Your task to perform on an android device: Go to wifi settings Image 0: 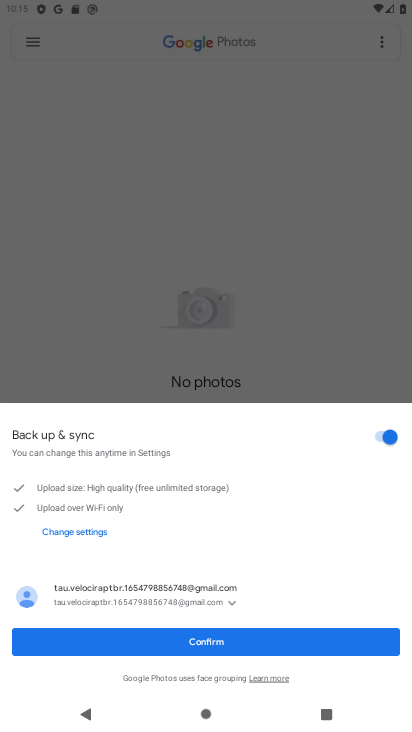
Step 0: press home button
Your task to perform on an android device: Go to wifi settings Image 1: 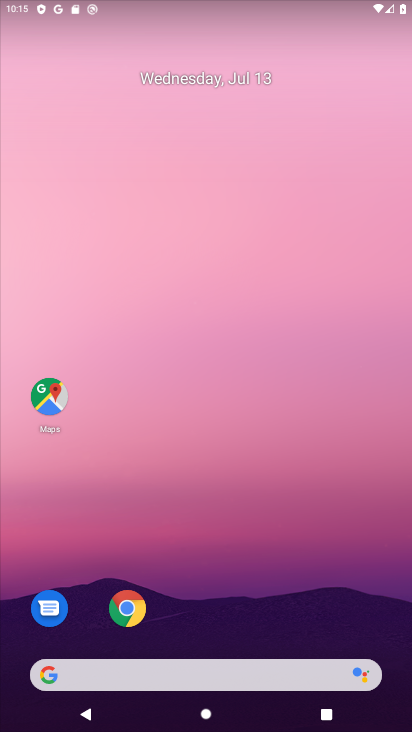
Step 1: drag from (245, 570) to (216, 219)
Your task to perform on an android device: Go to wifi settings Image 2: 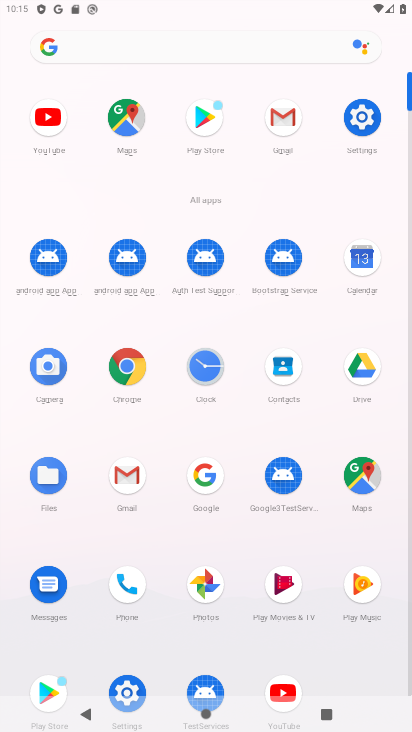
Step 2: click (367, 112)
Your task to perform on an android device: Go to wifi settings Image 3: 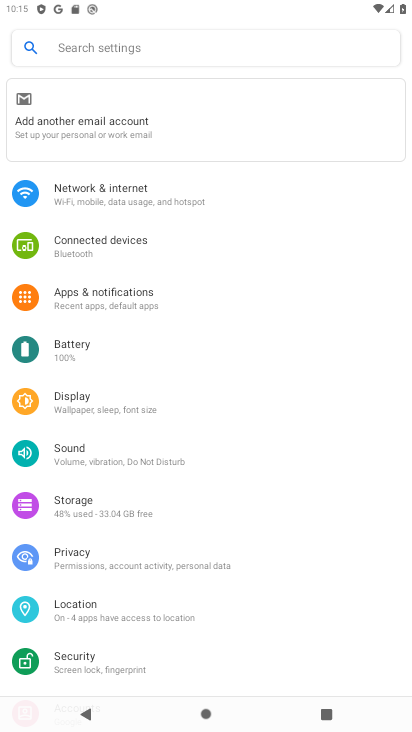
Step 3: click (183, 196)
Your task to perform on an android device: Go to wifi settings Image 4: 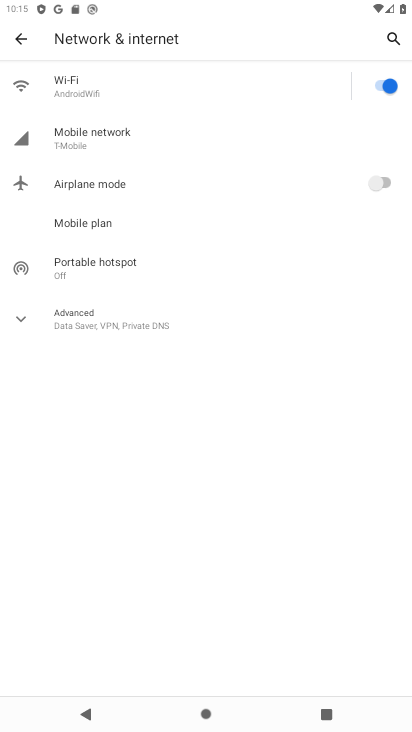
Step 4: click (92, 100)
Your task to perform on an android device: Go to wifi settings Image 5: 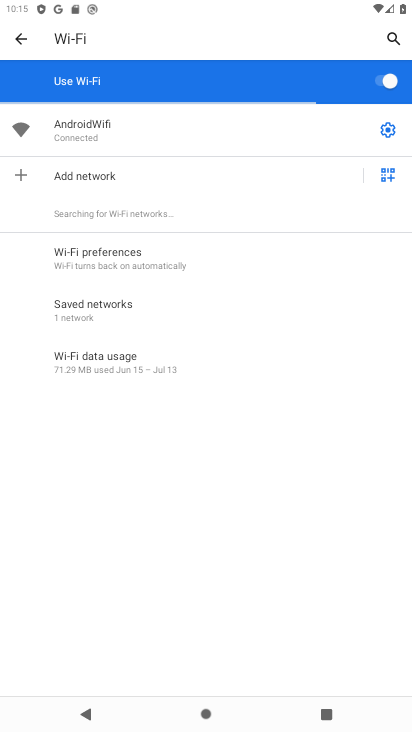
Step 5: task complete